Your task to perform on an android device: Find coffee shops on Maps Image 0: 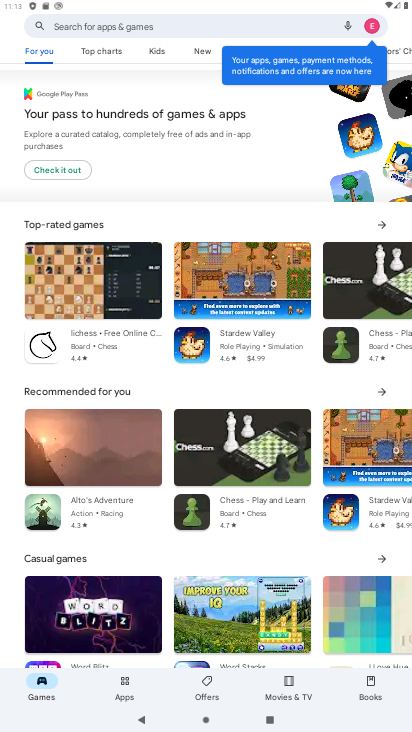
Step 0: press home button
Your task to perform on an android device: Find coffee shops on Maps Image 1: 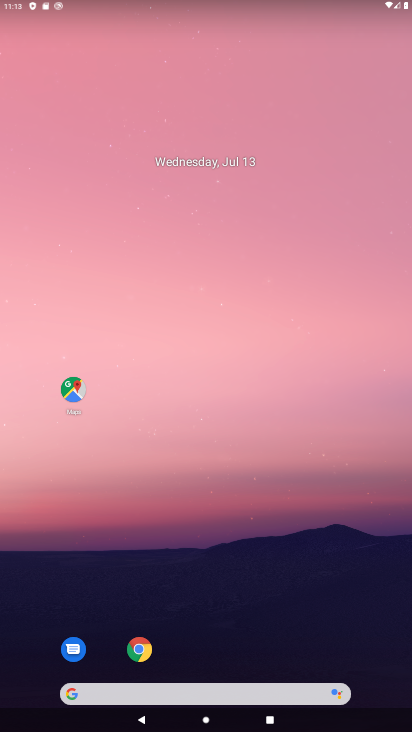
Step 1: click (68, 392)
Your task to perform on an android device: Find coffee shops on Maps Image 2: 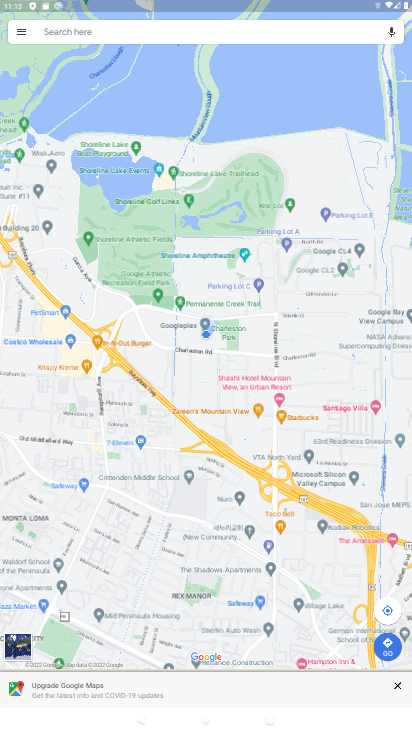
Step 2: click (123, 30)
Your task to perform on an android device: Find coffee shops on Maps Image 3: 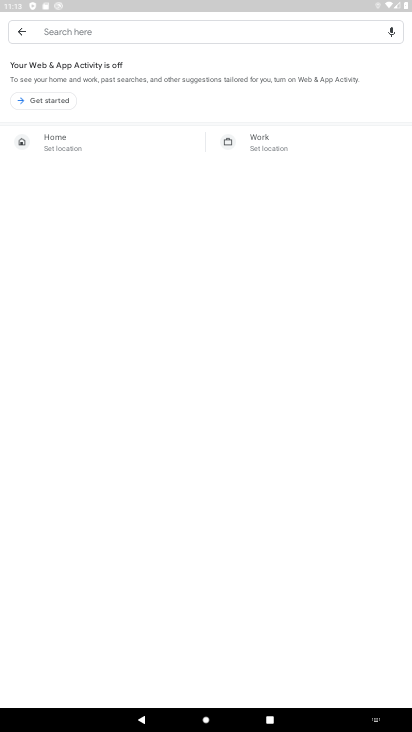
Step 3: type "coffee shops"
Your task to perform on an android device: Find coffee shops on Maps Image 4: 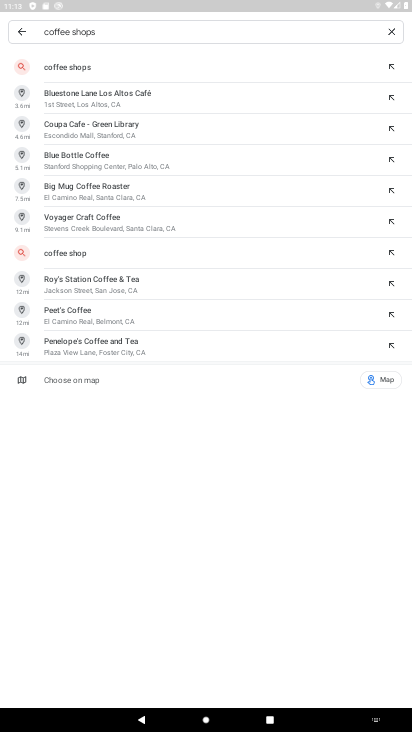
Step 4: click (97, 66)
Your task to perform on an android device: Find coffee shops on Maps Image 5: 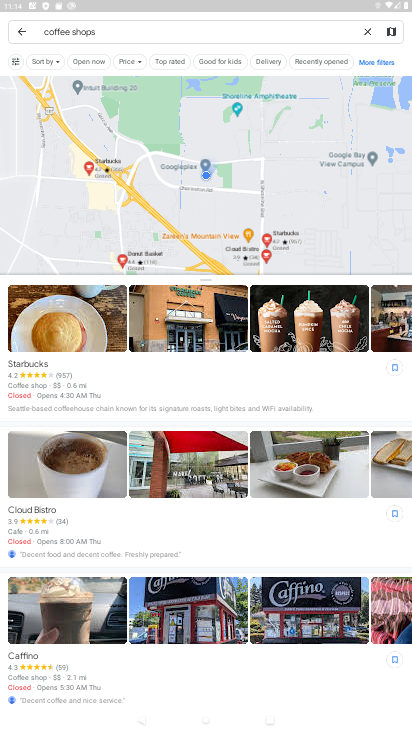
Step 5: task complete